Your task to perform on an android device: Go to notification settings Image 0: 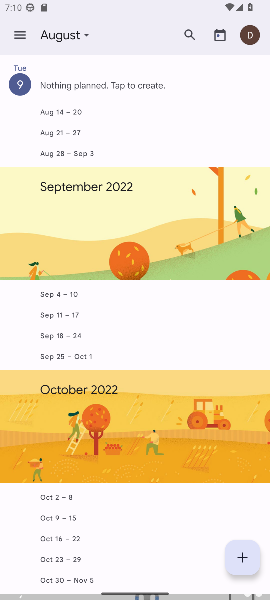
Step 0: press home button
Your task to perform on an android device: Go to notification settings Image 1: 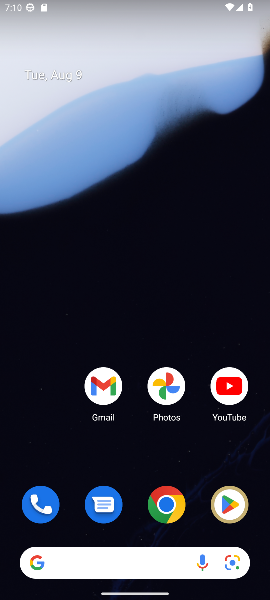
Step 1: drag from (149, 450) to (78, 89)
Your task to perform on an android device: Go to notification settings Image 2: 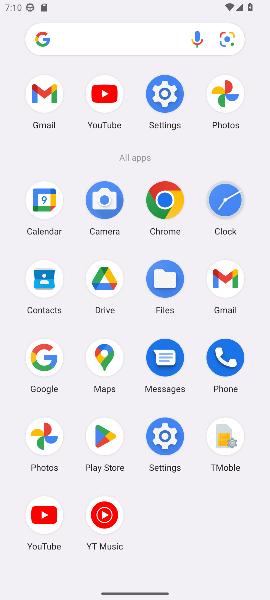
Step 2: click (172, 471)
Your task to perform on an android device: Go to notification settings Image 3: 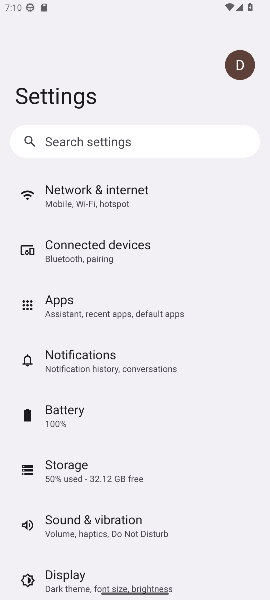
Step 3: click (86, 359)
Your task to perform on an android device: Go to notification settings Image 4: 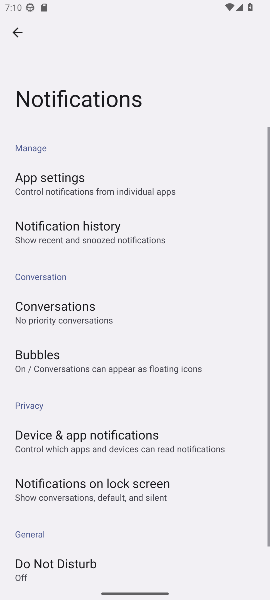
Step 4: task complete